Your task to perform on an android device: Go to notification settings Image 0: 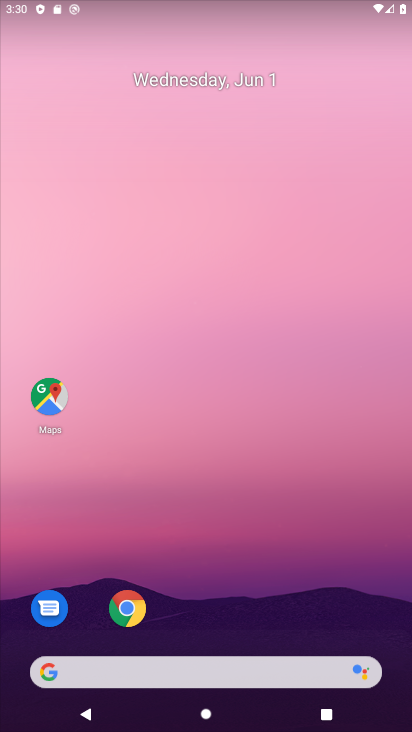
Step 0: drag from (116, 718) to (66, 76)
Your task to perform on an android device: Go to notification settings Image 1: 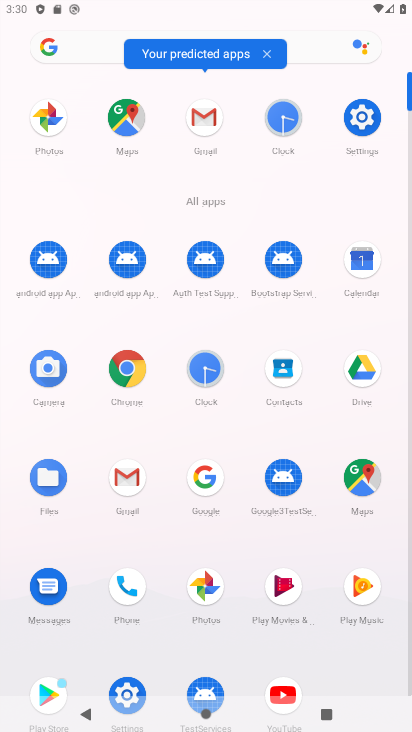
Step 1: click (121, 690)
Your task to perform on an android device: Go to notification settings Image 2: 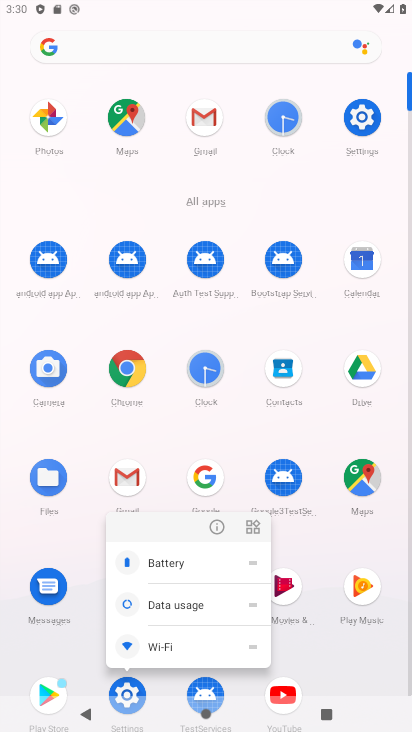
Step 2: click (130, 698)
Your task to perform on an android device: Go to notification settings Image 3: 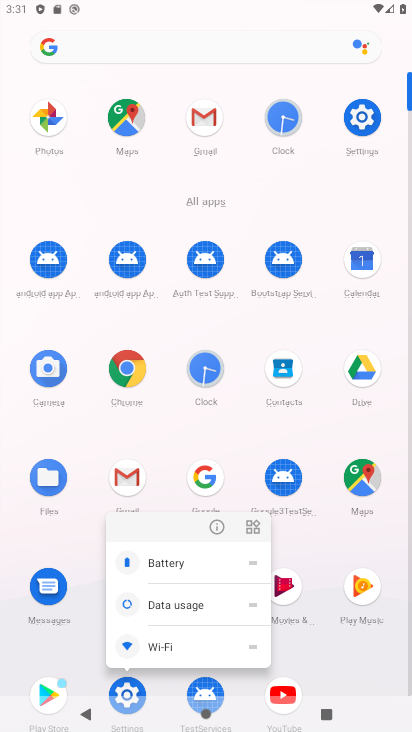
Step 3: click (129, 693)
Your task to perform on an android device: Go to notification settings Image 4: 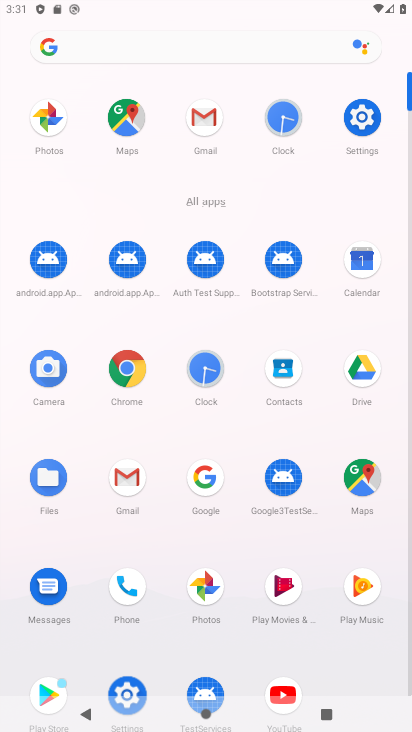
Step 4: click (356, 130)
Your task to perform on an android device: Go to notification settings Image 5: 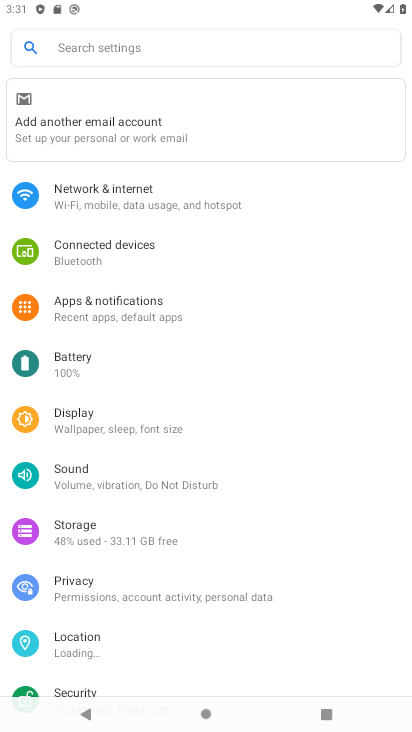
Step 5: click (151, 310)
Your task to perform on an android device: Go to notification settings Image 6: 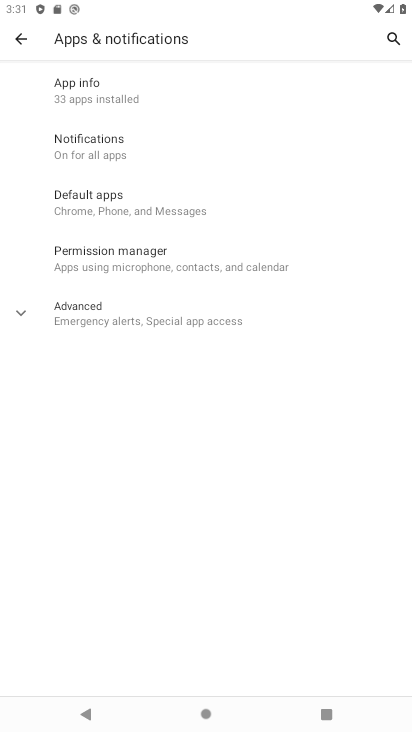
Step 6: task complete